Your task to perform on an android device: open a bookmark in the chrome app Image 0: 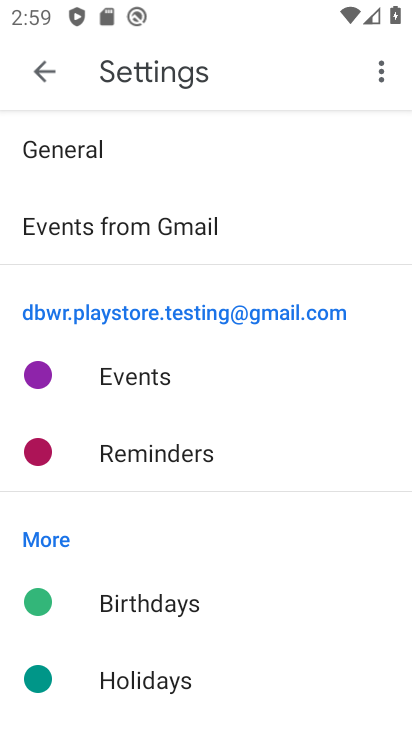
Step 0: press home button
Your task to perform on an android device: open a bookmark in the chrome app Image 1: 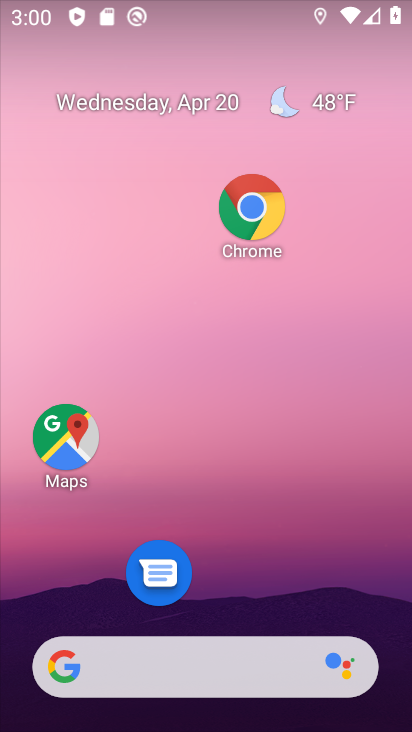
Step 1: click (264, 219)
Your task to perform on an android device: open a bookmark in the chrome app Image 2: 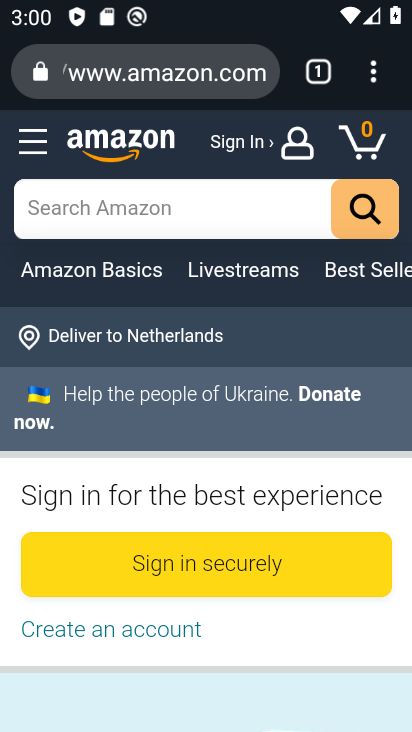
Step 2: click (381, 87)
Your task to perform on an android device: open a bookmark in the chrome app Image 3: 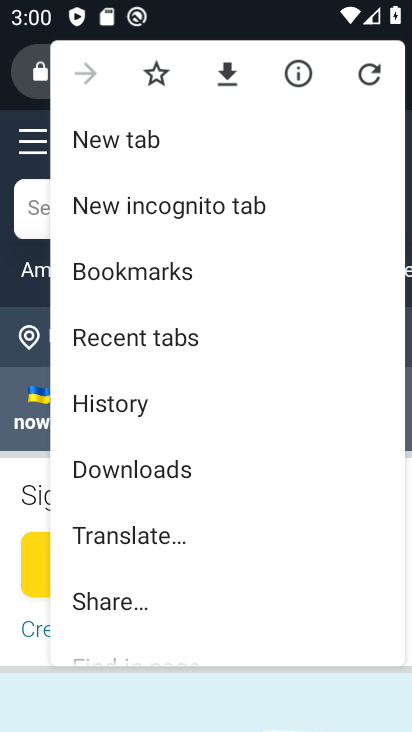
Step 3: click (205, 268)
Your task to perform on an android device: open a bookmark in the chrome app Image 4: 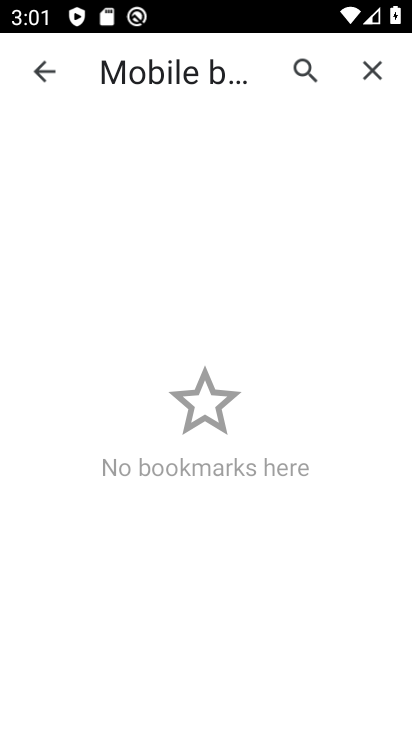
Step 4: task complete